Your task to perform on an android device: change the clock style Image 0: 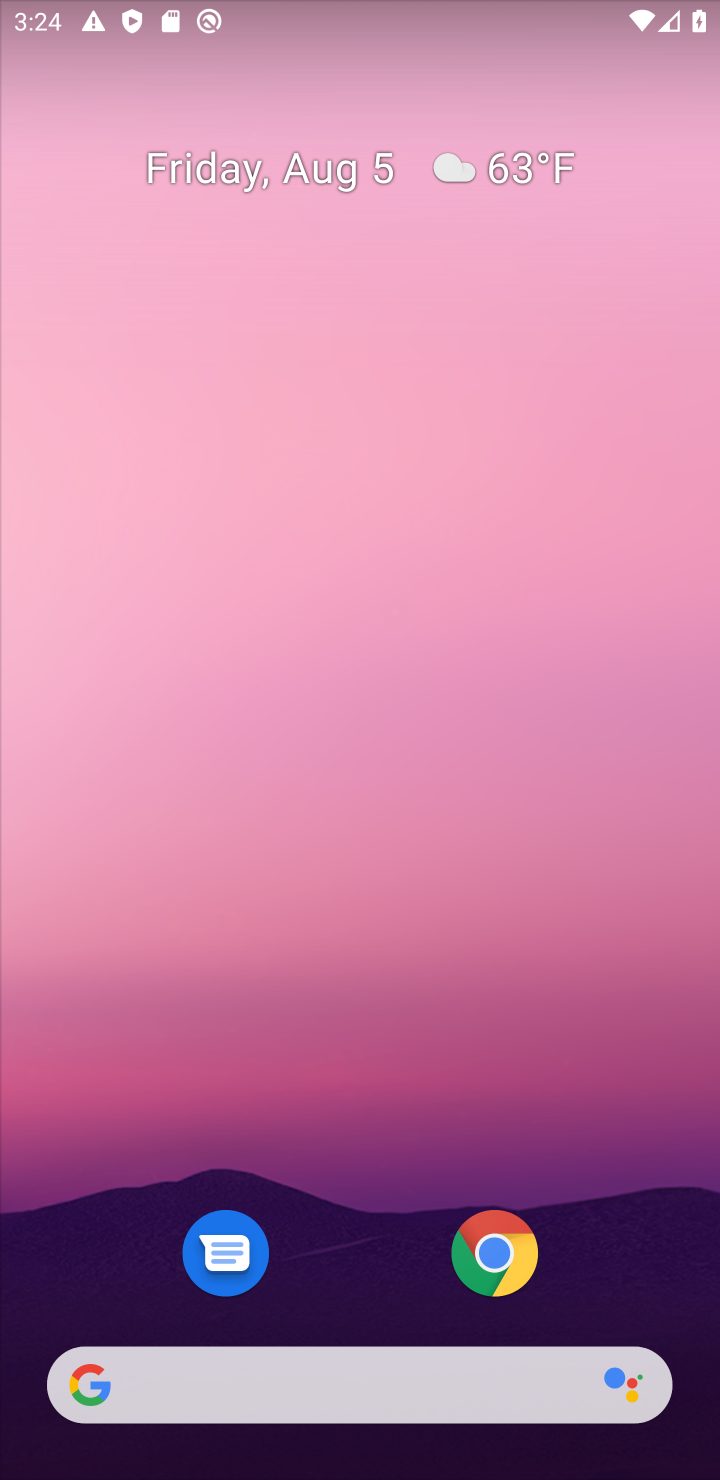
Step 0: drag from (386, 1307) to (452, 171)
Your task to perform on an android device: change the clock style Image 1: 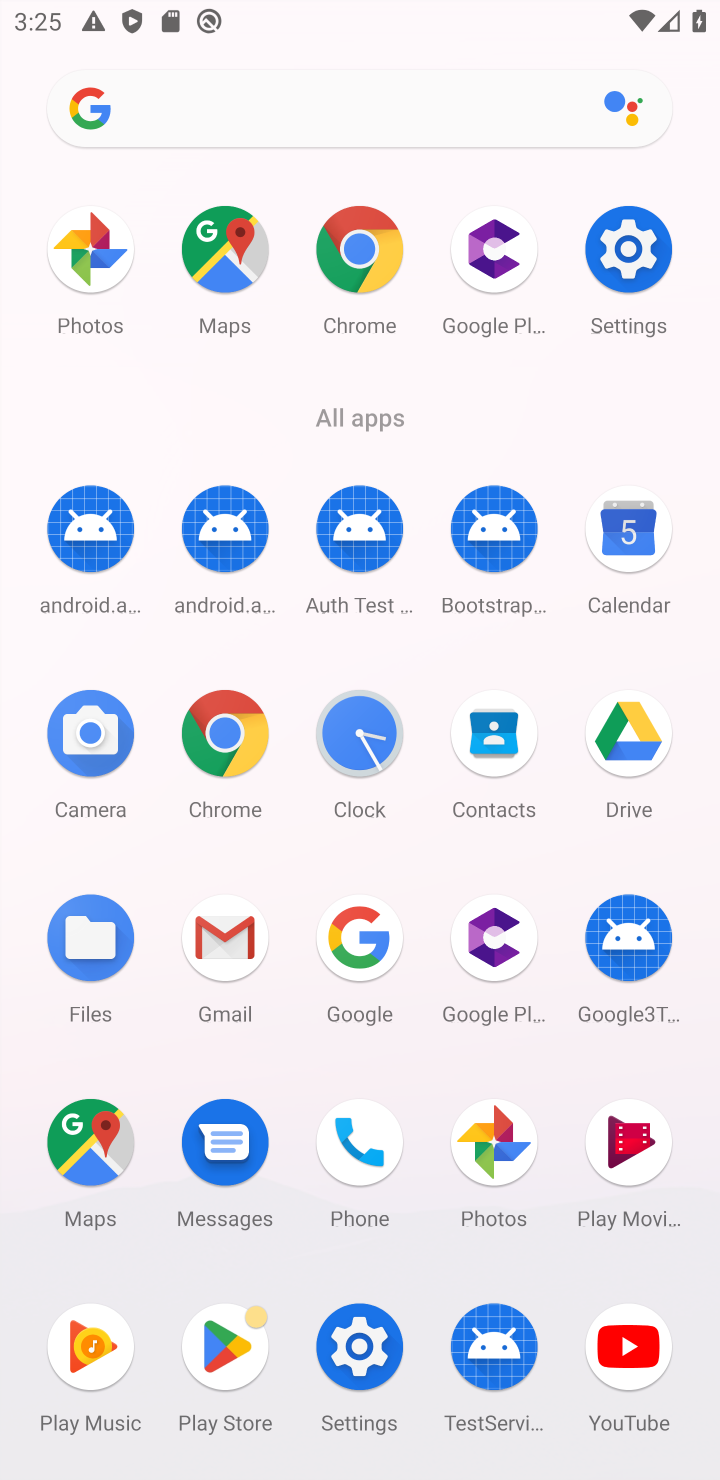
Step 1: click (357, 725)
Your task to perform on an android device: change the clock style Image 2: 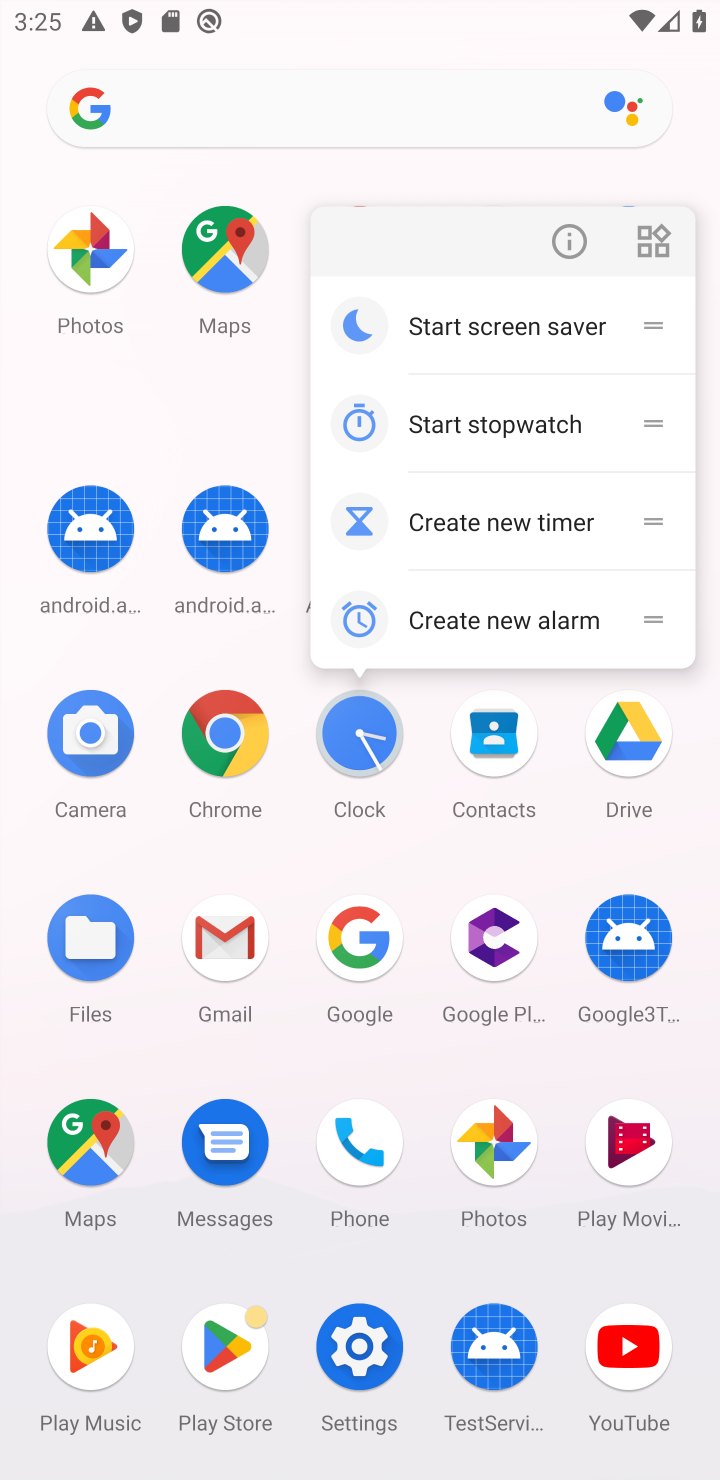
Step 2: click (357, 725)
Your task to perform on an android device: change the clock style Image 3: 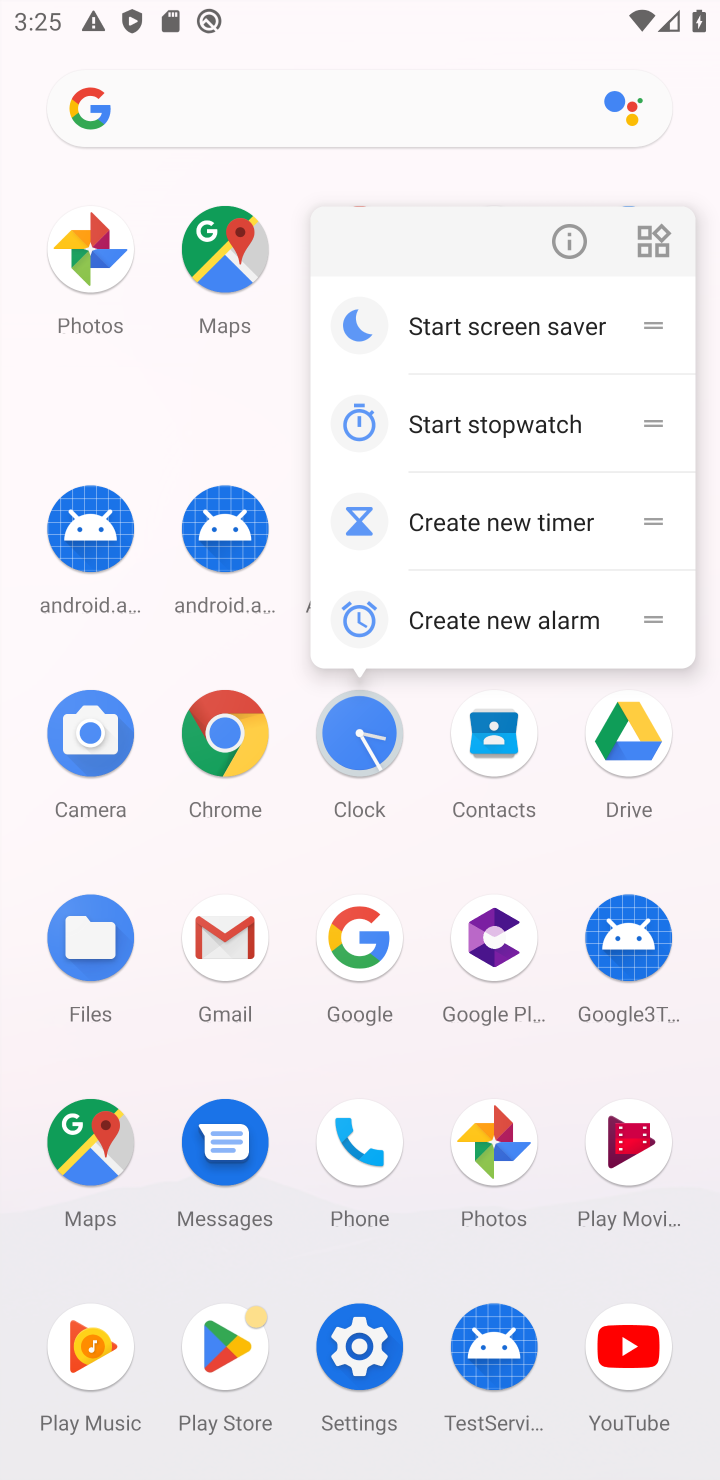
Step 3: click (359, 720)
Your task to perform on an android device: change the clock style Image 4: 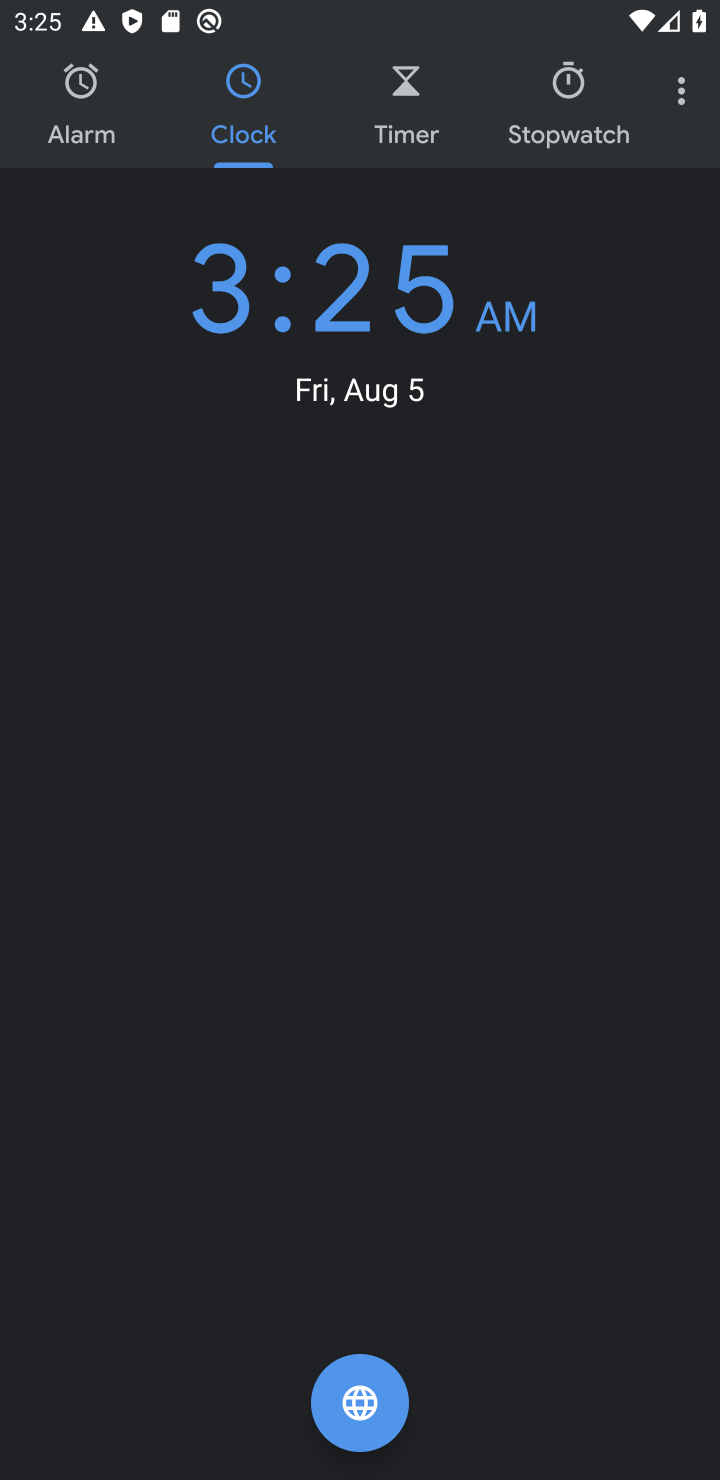
Step 4: click (694, 96)
Your task to perform on an android device: change the clock style Image 5: 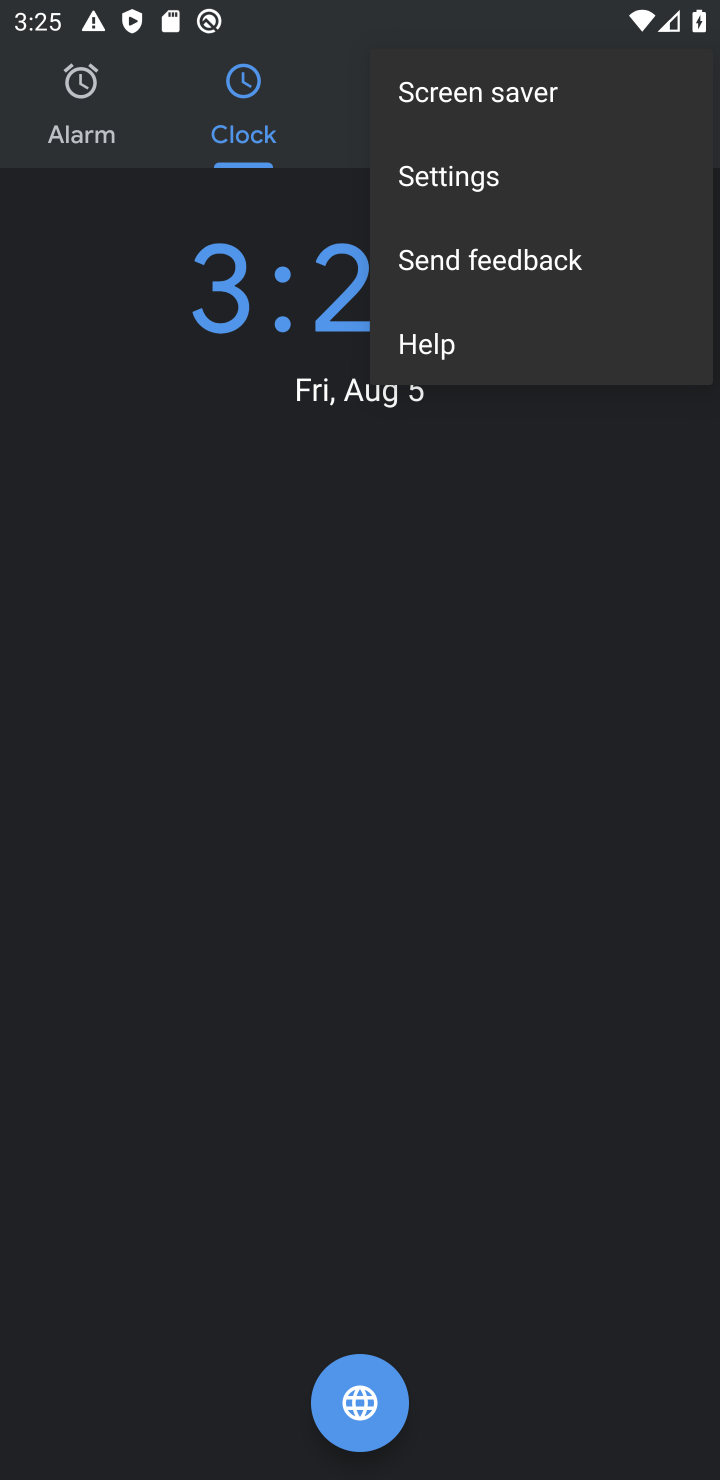
Step 5: click (506, 176)
Your task to perform on an android device: change the clock style Image 6: 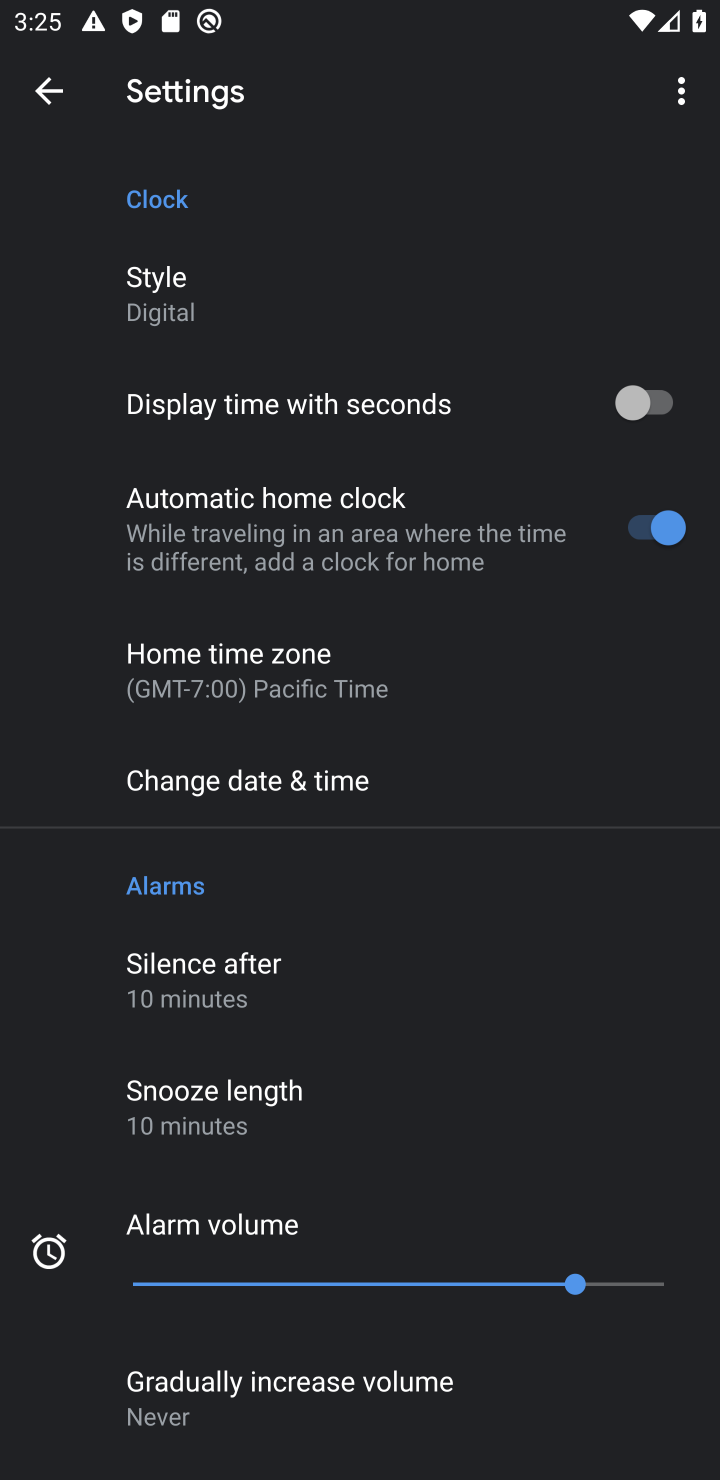
Step 6: click (215, 292)
Your task to perform on an android device: change the clock style Image 7: 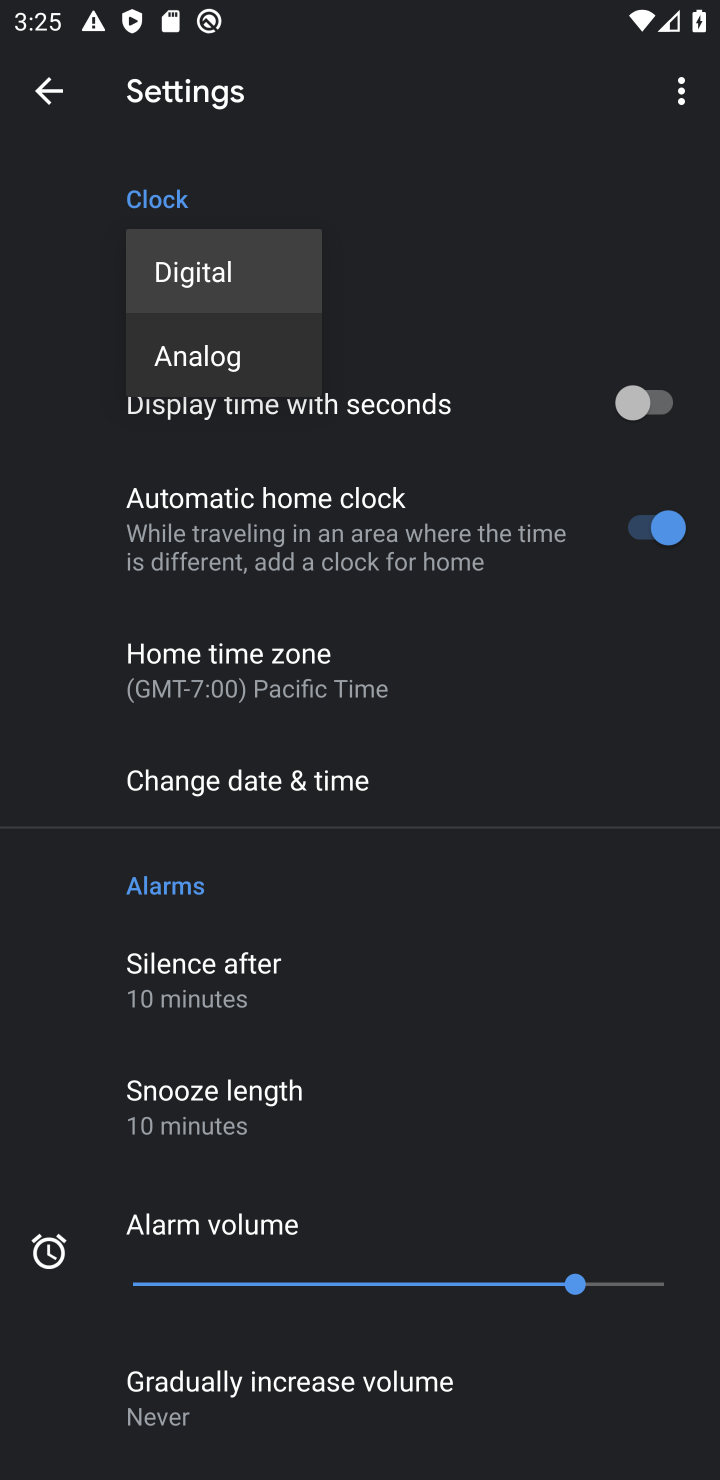
Step 7: click (259, 362)
Your task to perform on an android device: change the clock style Image 8: 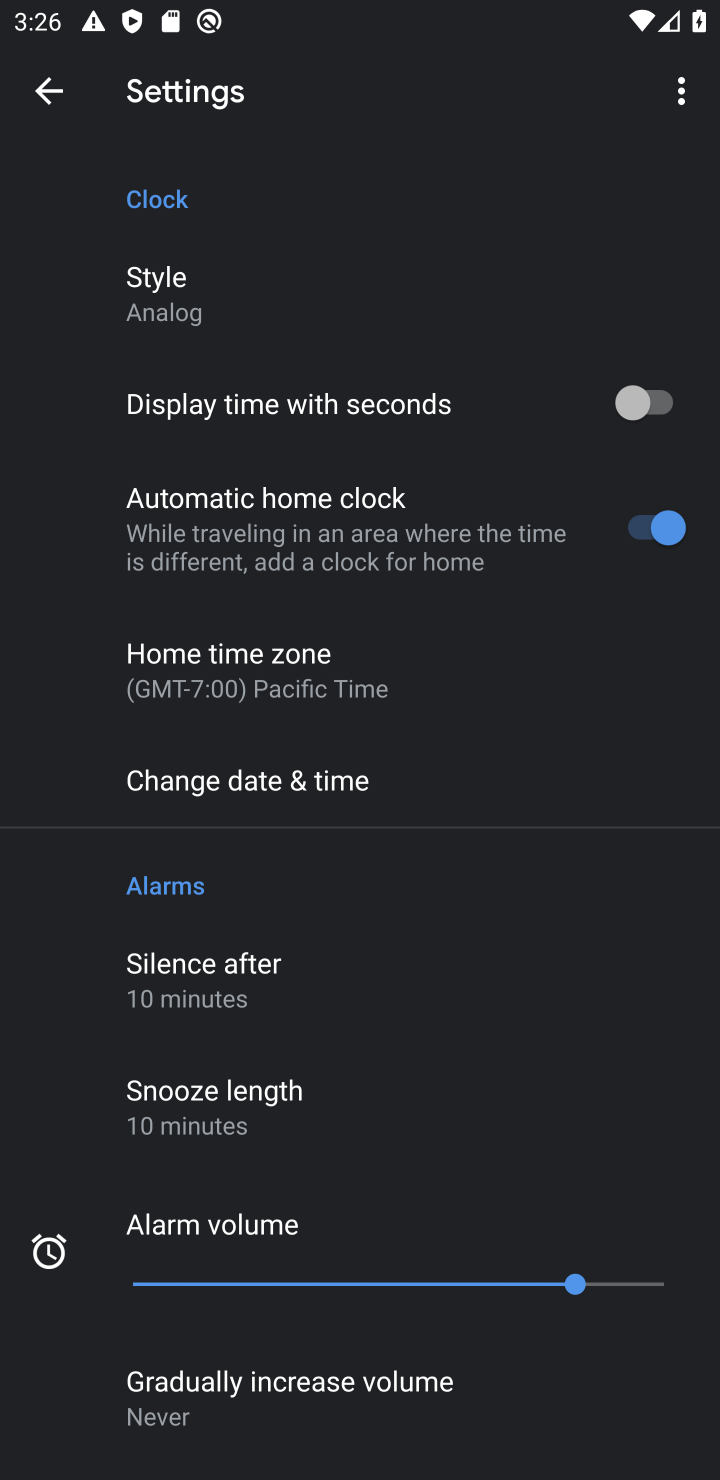
Step 8: task complete